Your task to perform on an android device: Open location settings Image 0: 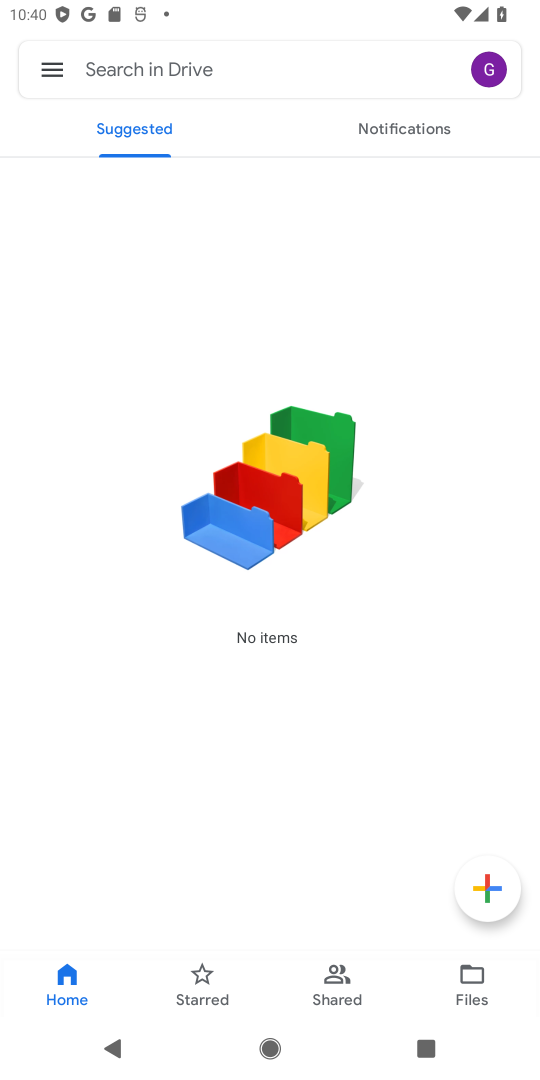
Step 0: press home button
Your task to perform on an android device: Open location settings Image 1: 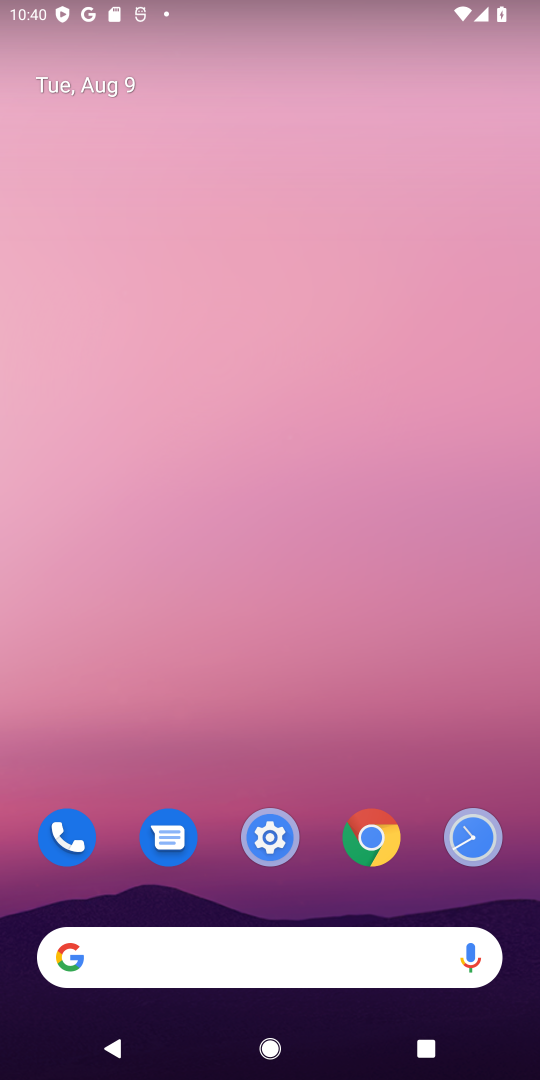
Step 1: drag from (333, 878) to (331, 425)
Your task to perform on an android device: Open location settings Image 2: 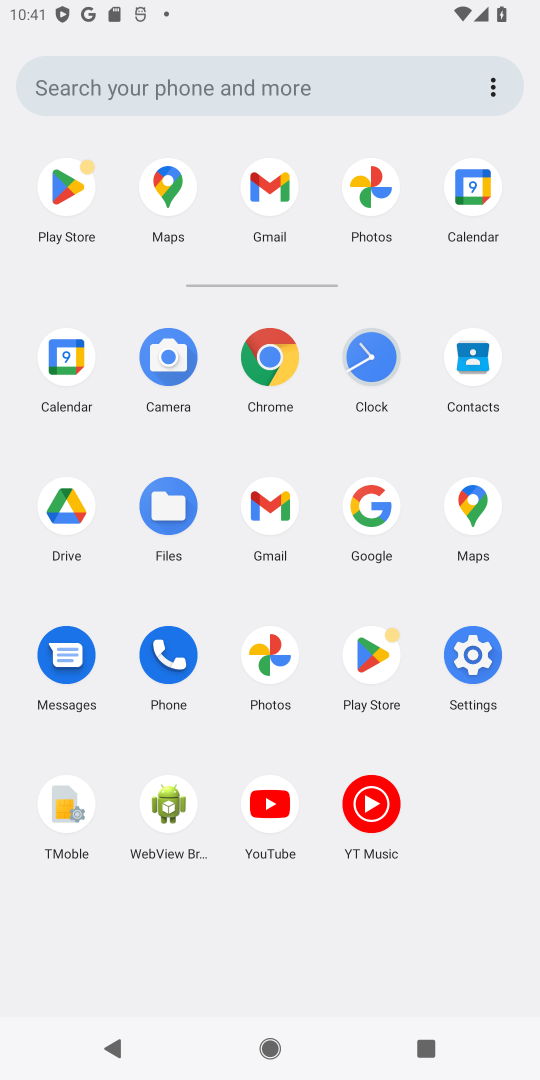
Step 2: click (478, 657)
Your task to perform on an android device: Open location settings Image 3: 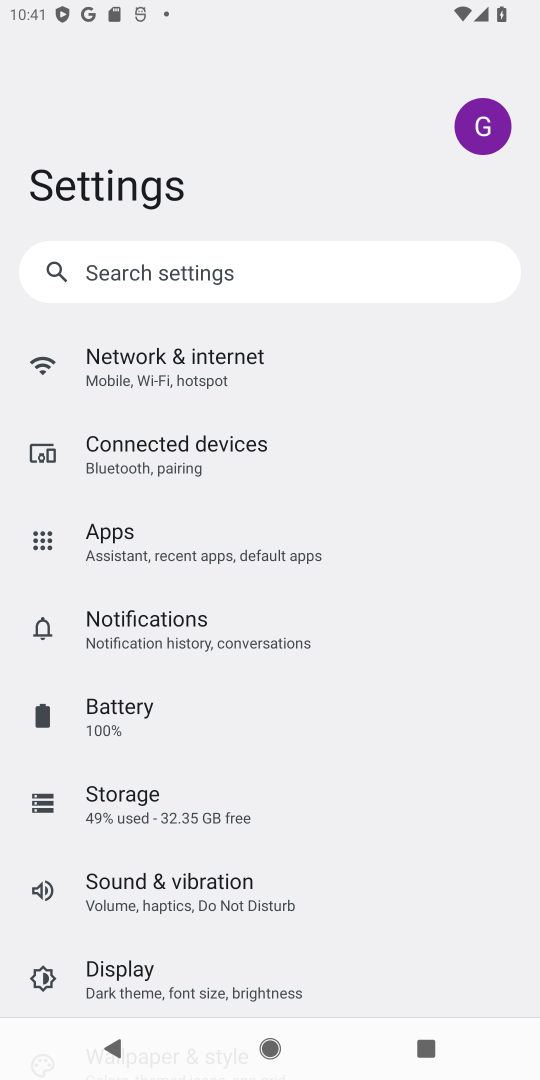
Step 3: drag from (124, 910) to (123, 584)
Your task to perform on an android device: Open location settings Image 4: 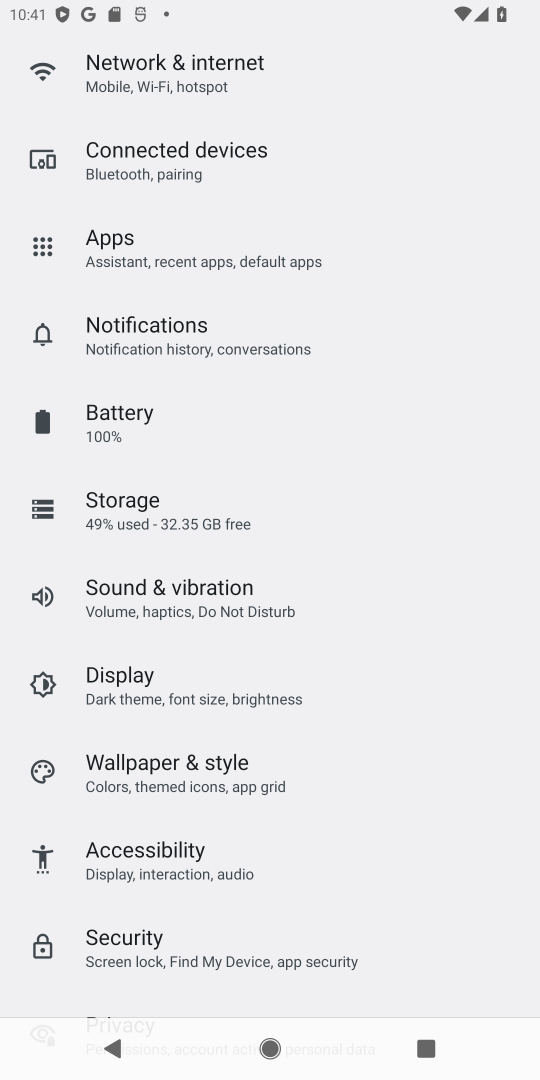
Step 4: drag from (169, 915) to (169, 544)
Your task to perform on an android device: Open location settings Image 5: 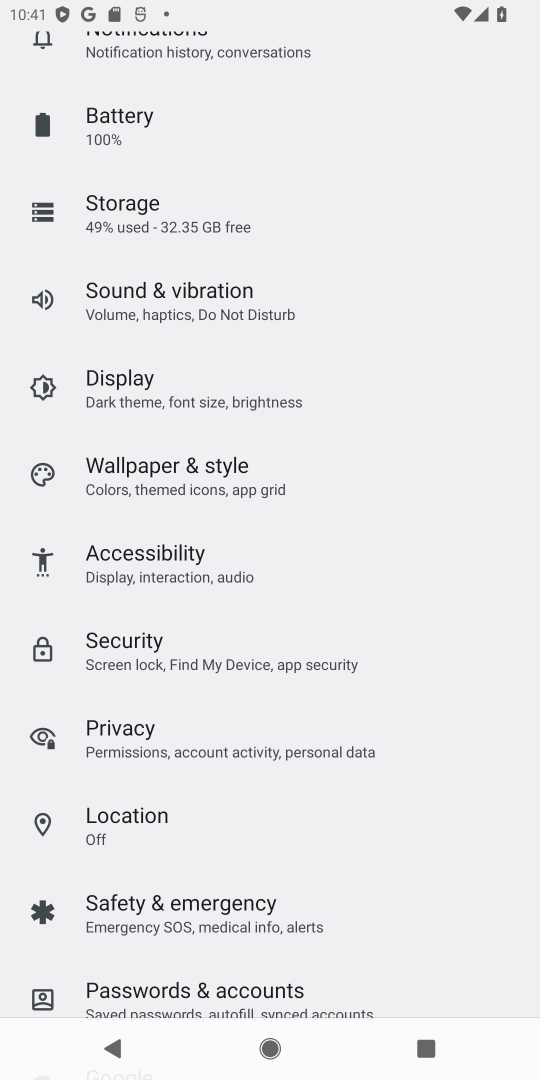
Step 5: click (120, 815)
Your task to perform on an android device: Open location settings Image 6: 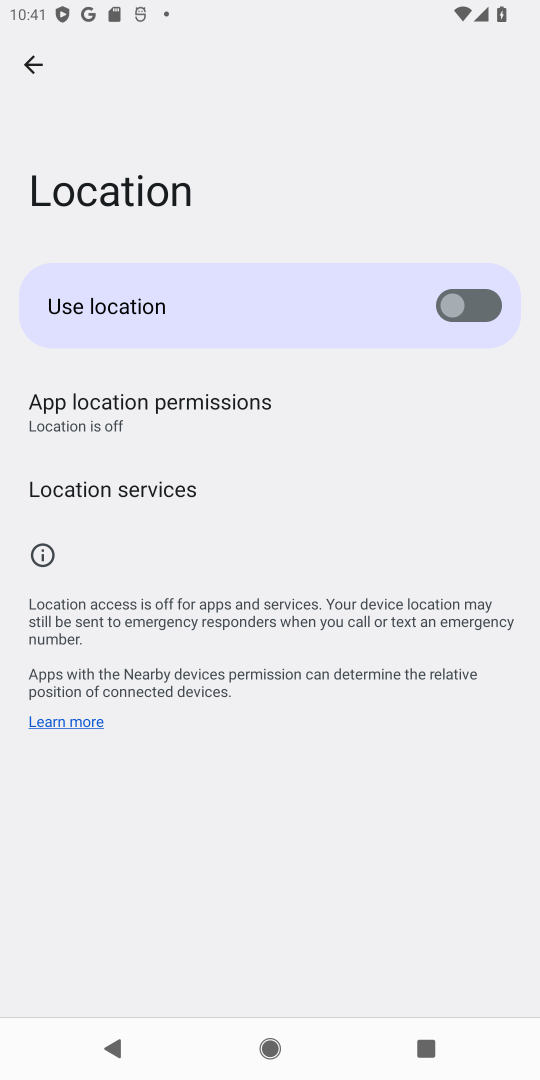
Step 6: task complete